Your task to perform on an android device: change the clock display to show seconds Image 0: 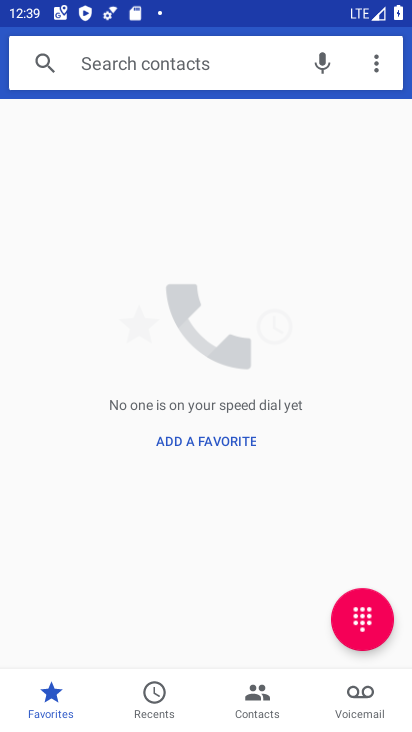
Step 0: press home button
Your task to perform on an android device: change the clock display to show seconds Image 1: 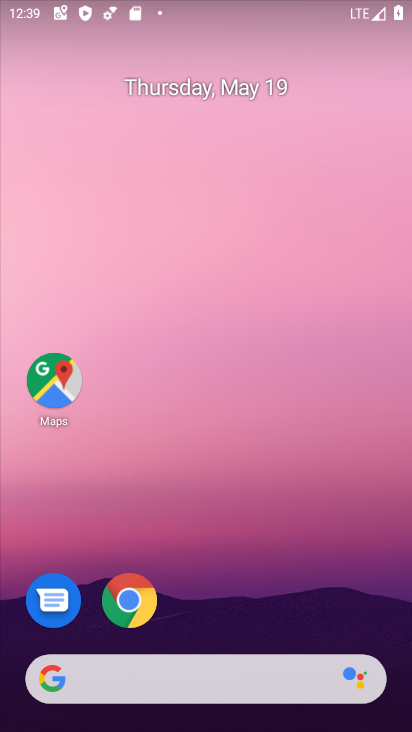
Step 1: drag from (191, 537) to (129, 114)
Your task to perform on an android device: change the clock display to show seconds Image 2: 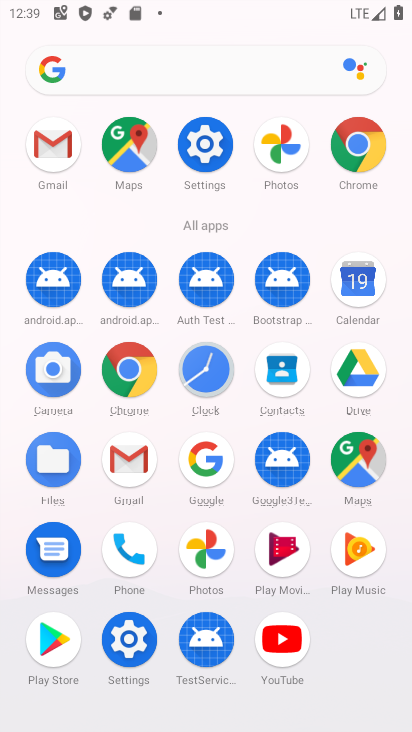
Step 2: click (211, 372)
Your task to perform on an android device: change the clock display to show seconds Image 3: 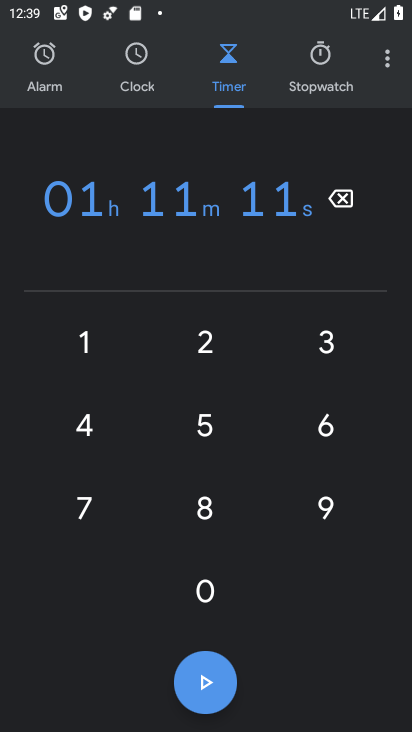
Step 3: click (383, 59)
Your task to perform on an android device: change the clock display to show seconds Image 4: 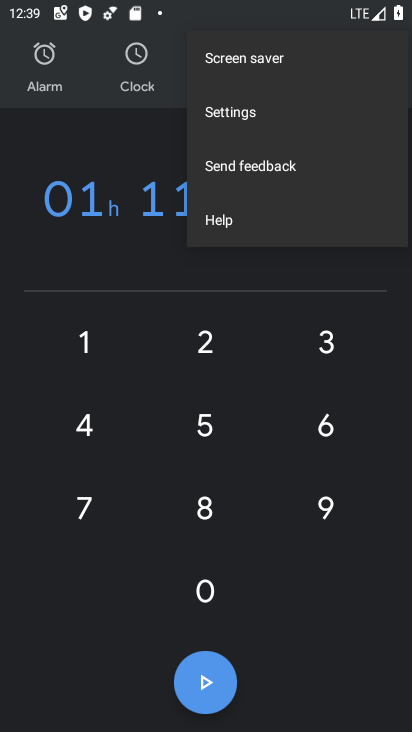
Step 4: click (242, 116)
Your task to perform on an android device: change the clock display to show seconds Image 5: 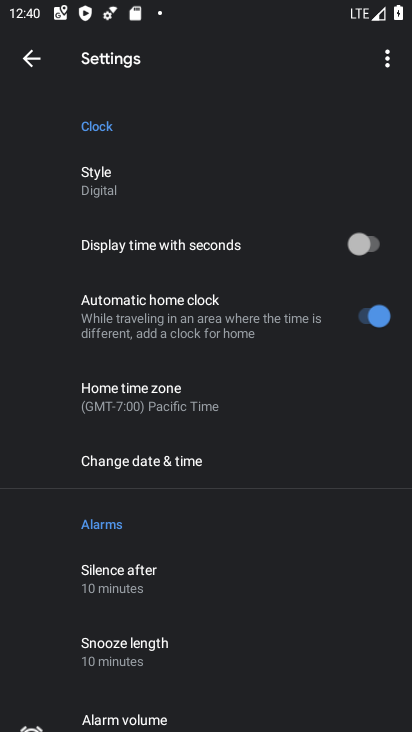
Step 5: click (102, 167)
Your task to perform on an android device: change the clock display to show seconds Image 6: 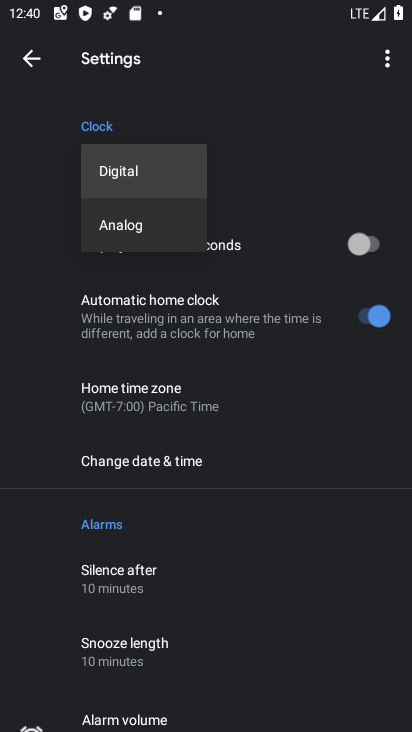
Step 6: click (279, 148)
Your task to perform on an android device: change the clock display to show seconds Image 7: 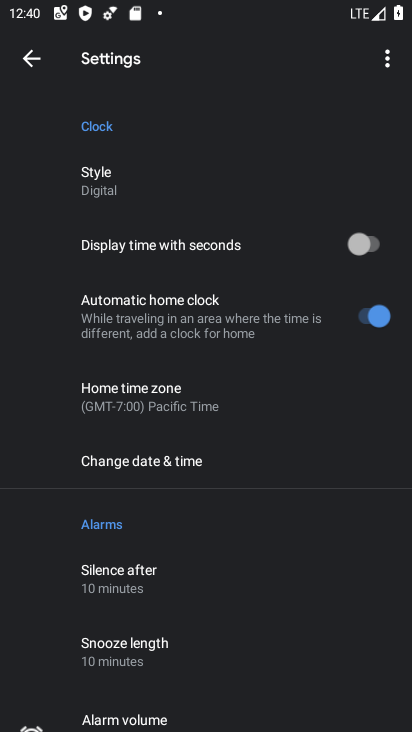
Step 7: click (360, 245)
Your task to perform on an android device: change the clock display to show seconds Image 8: 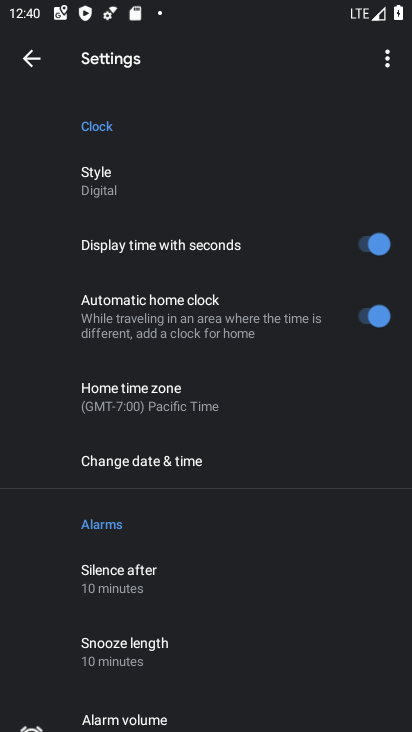
Step 8: task complete